Your task to perform on an android device: Find coffee shops on Maps Image 0: 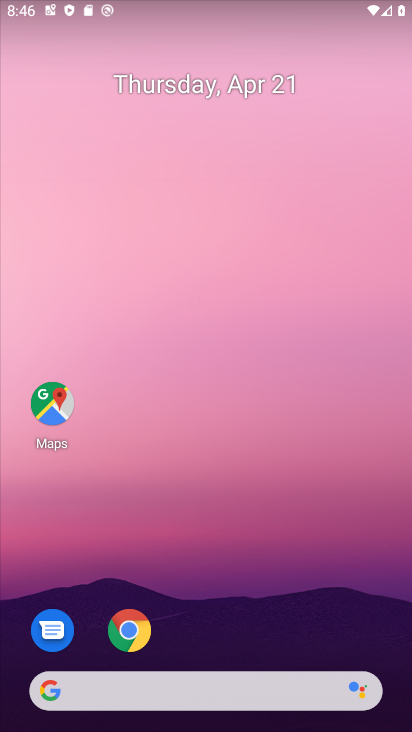
Step 0: drag from (223, 591) to (291, 119)
Your task to perform on an android device: Find coffee shops on Maps Image 1: 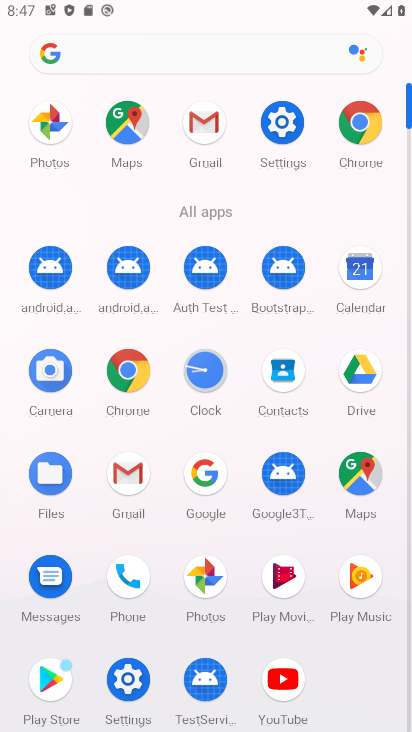
Step 1: click (117, 124)
Your task to perform on an android device: Find coffee shops on Maps Image 2: 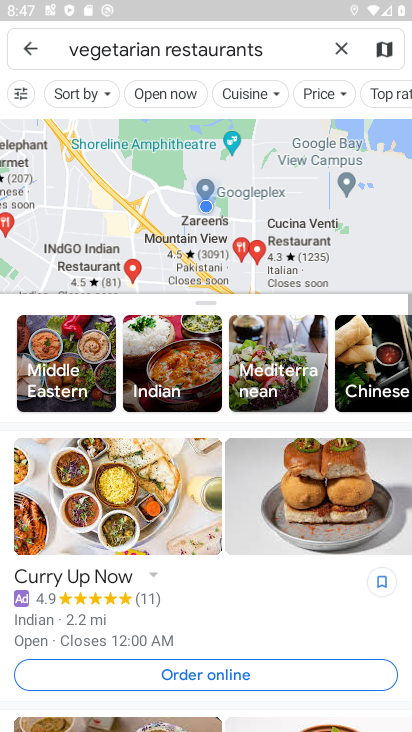
Step 2: click (333, 47)
Your task to perform on an android device: Find coffee shops on Maps Image 3: 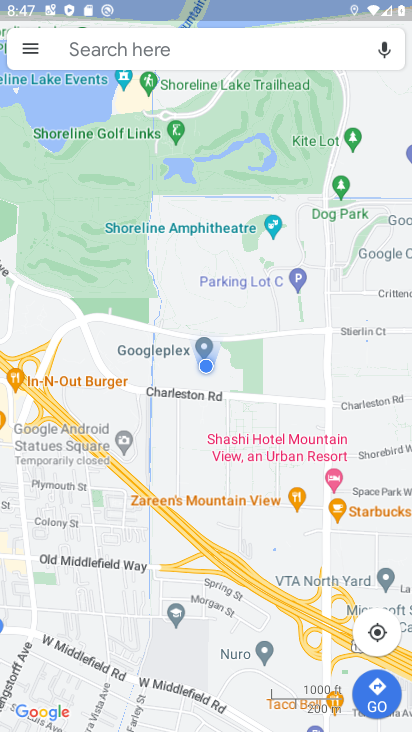
Step 3: click (181, 52)
Your task to perform on an android device: Find coffee shops on Maps Image 4: 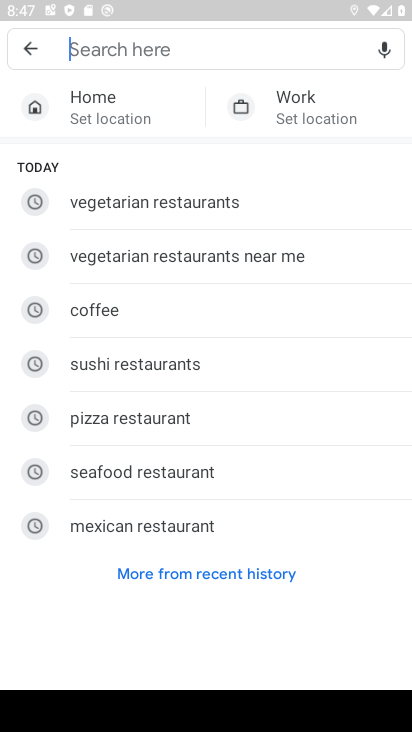
Step 4: type "Coffee shops "
Your task to perform on an android device: Find coffee shops on Maps Image 5: 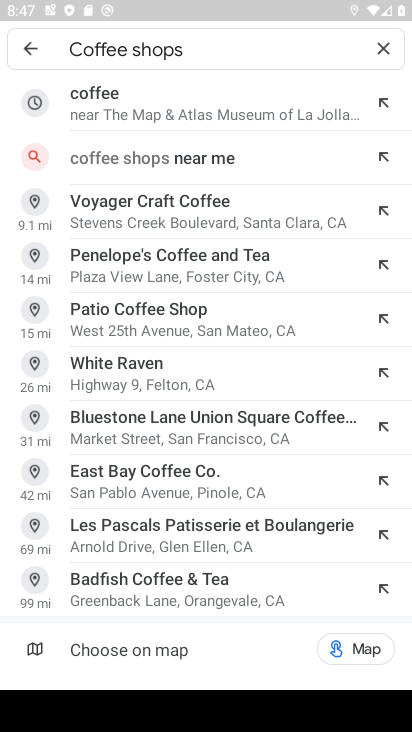
Step 5: click (257, 159)
Your task to perform on an android device: Find coffee shops on Maps Image 6: 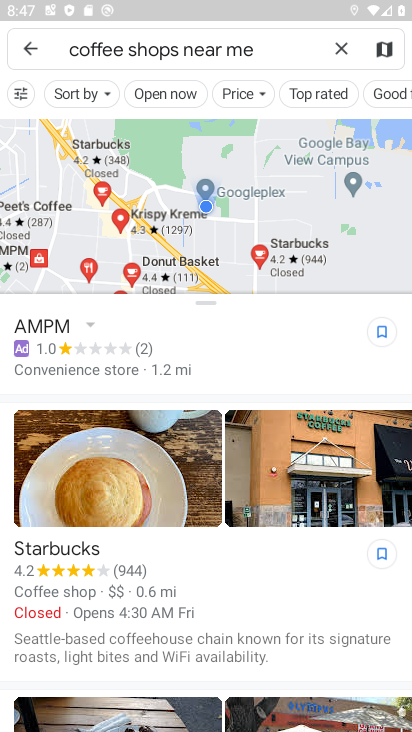
Step 6: task complete